Your task to perform on an android device: change the clock style Image 0: 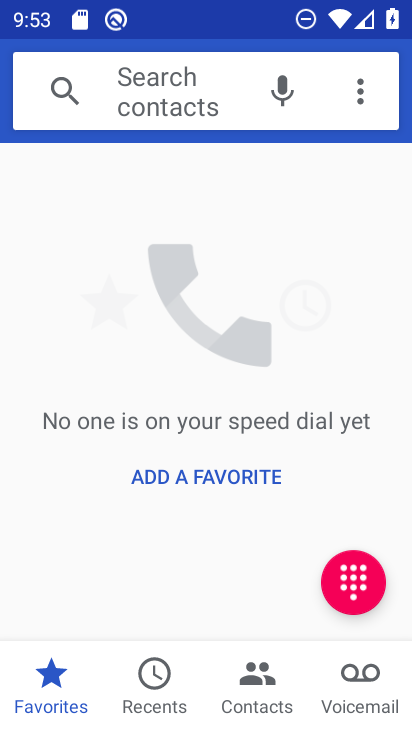
Step 0: press home button
Your task to perform on an android device: change the clock style Image 1: 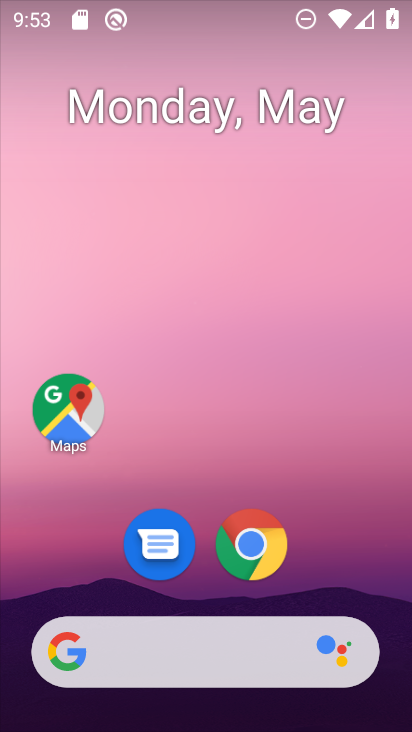
Step 1: drag from (314, 556) to (119, 93)
Your task to perform on an android device: change the clock style Image 2: 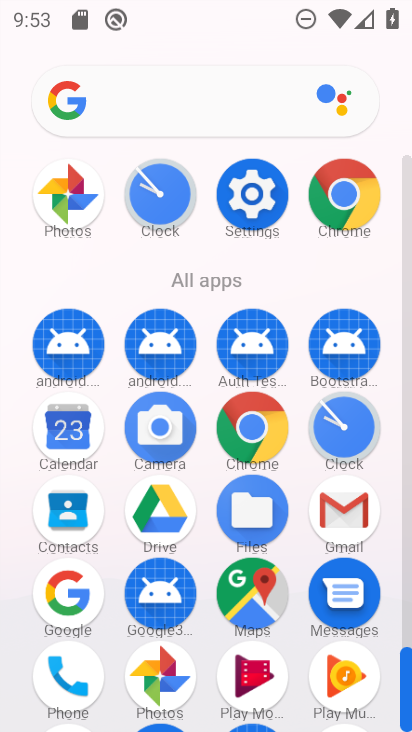
Step 2: click (352, 442)
Your task to perform on an android device: change the clock style Image 3: 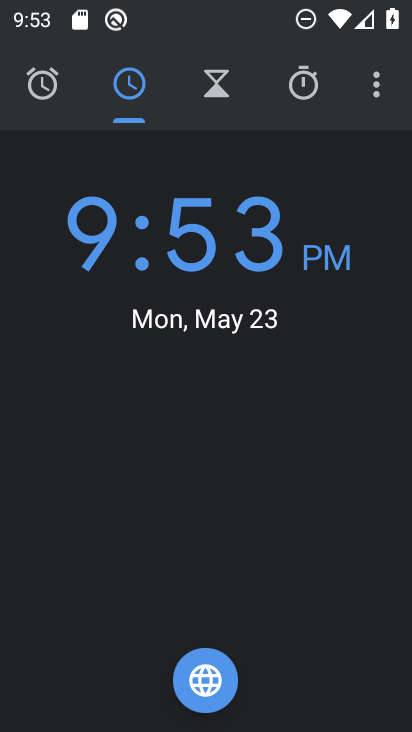
Step 3: click (369, 83)
Your task to perform on an android device: change the clock style Image 4: 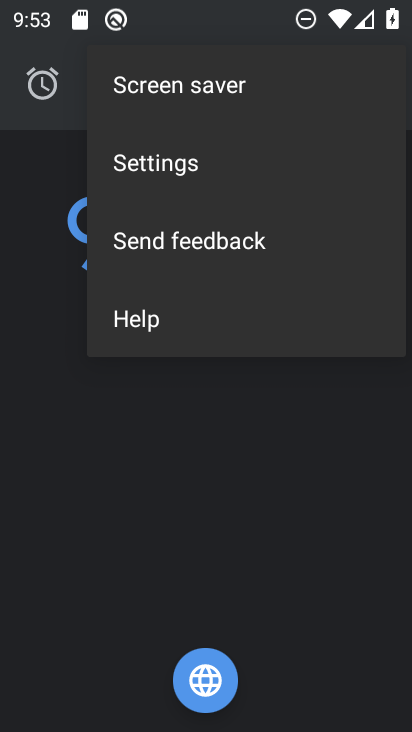
Step 4: click (164, 154)
Your task to perform on an android device: change the clock style Image 5: 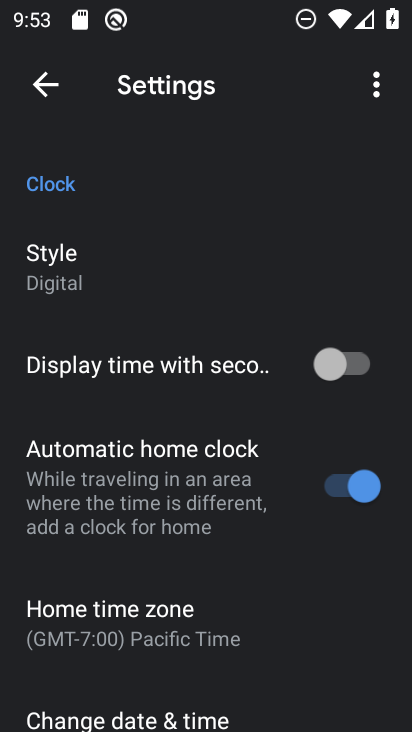
Step 5: click (58, 274)
Your task to perform on an android device: change the clock style Image 6: 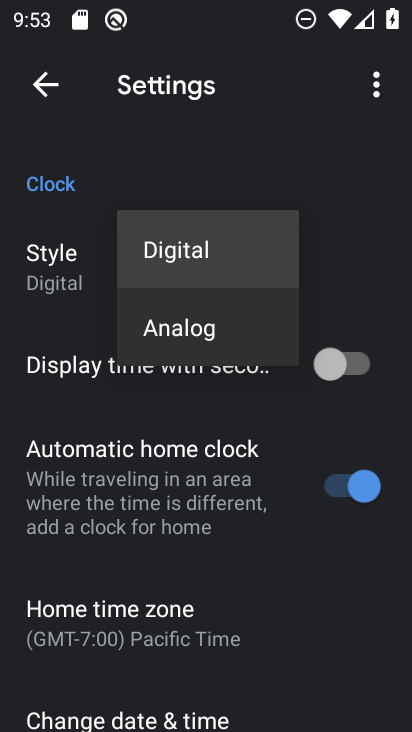
Step 6: click (197, 331)
Your task to perform on an android device: change the clock style Image 7: 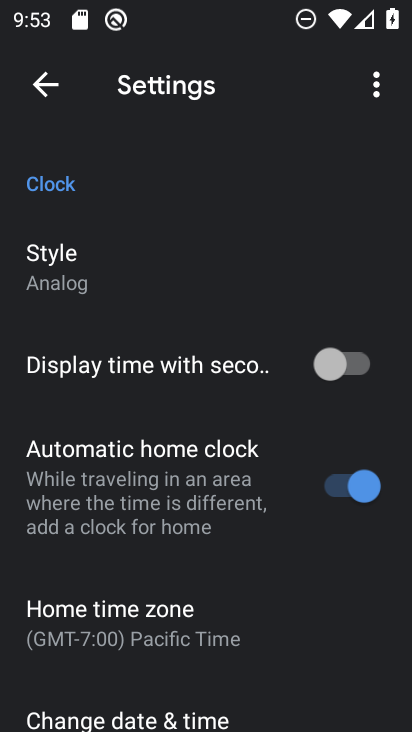
Step 7: task complete